Your task to perform on an android device: Open calendar and show me the fourth week of next month Image 0: 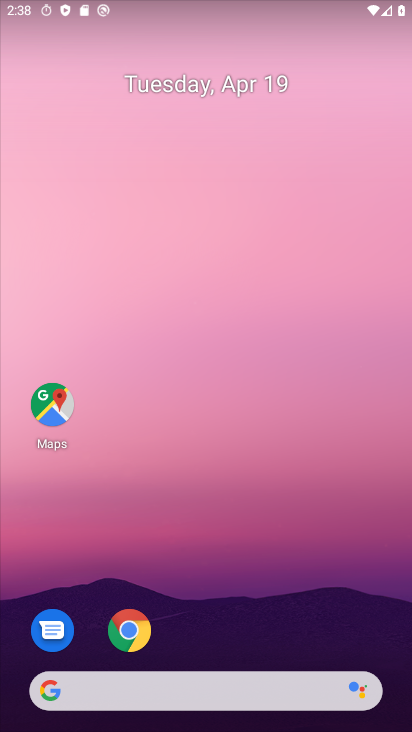
Step 0: drag from (287, 628) to (327, 66)
Your task to perform on an android device: Open calendar and show me the fourth week of next month Image 1: 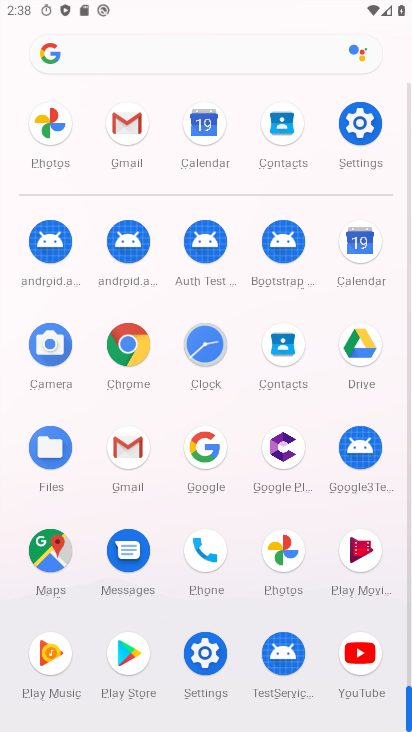
Step 1: click (361, 246)
Your task to perform on an android device: Open calendar and show me the fourth week of next month Image 2: 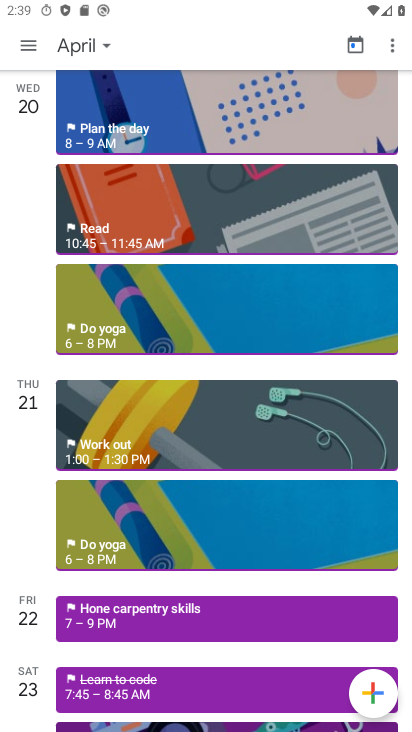
Step 2: click (73, 46)
Your task to perform on an android device: Open calendar and show me the fourth week of next month Image 3: 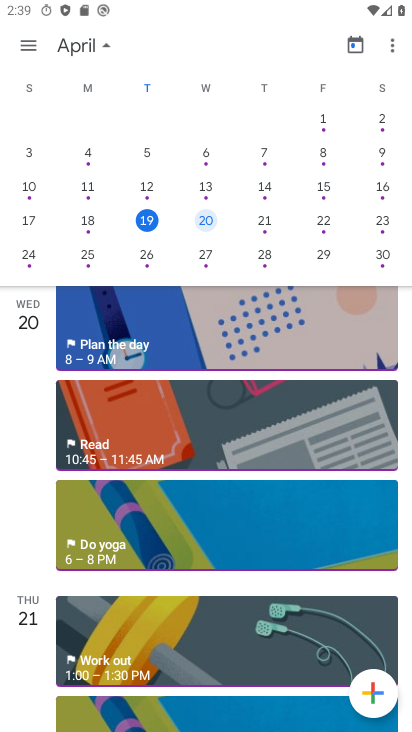
Step 3: drag from (314, 191) to (2, 196)
Your task to perform on an android device: Open calendar and show me the fourth week of next month Image 4: 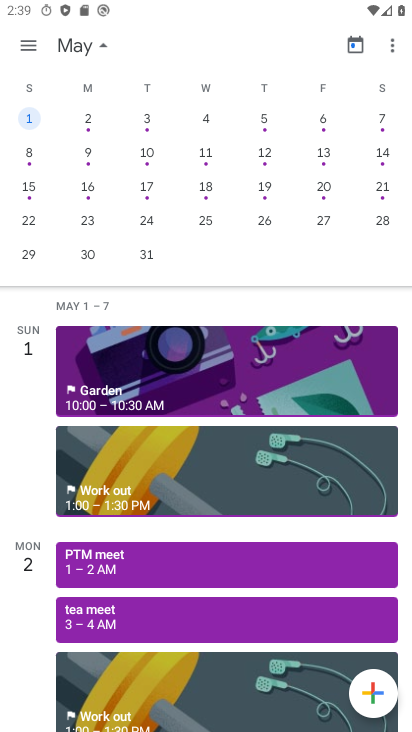
Step 4: click (30, 215)
Your task to perform on an android device: Open calendar and show me the fourth week of next month Image 5: 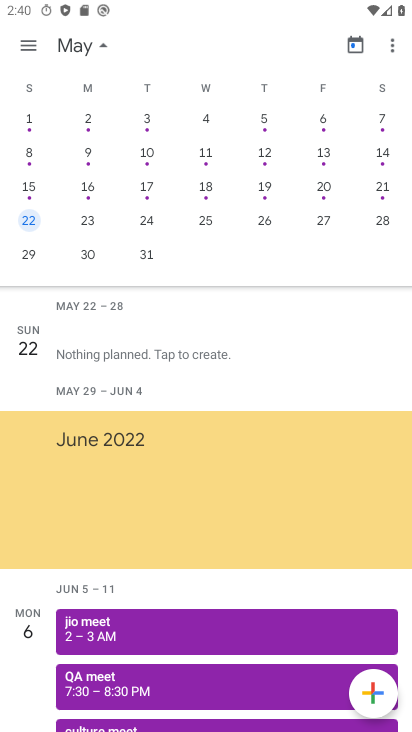
Step 5: task complete